Your task to perform on an android device: turn on priority inbox in the gmail app Image 0: 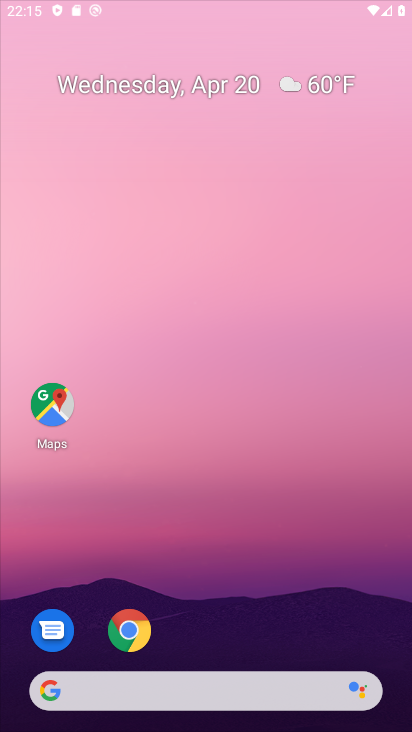
Step 0: click (264, 236)
Your task to perform on an android device: turn on priority inbox in the gmail app Image 1: 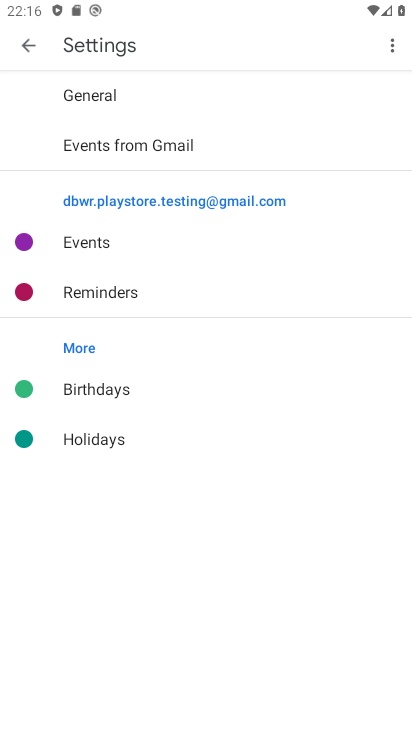
Step 1: press home button
Your task to perform on an android device: turn on priority inbox in the gmail app Image 2: 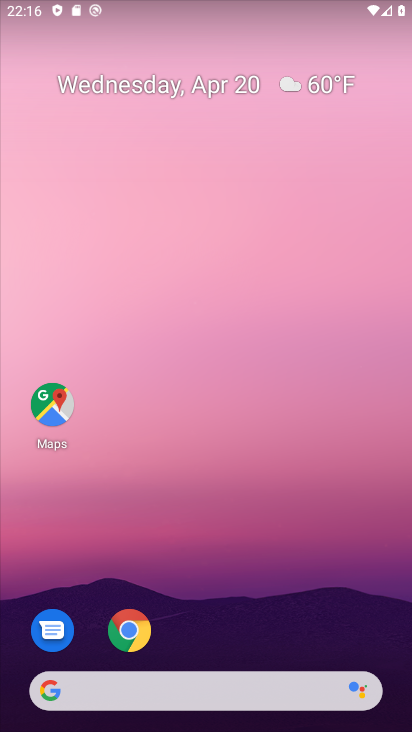
Step 2: drag from (223, 617) to (297, 136)
Your task to perform on an android device: turn on priority inbox in the gmail app Image 3: 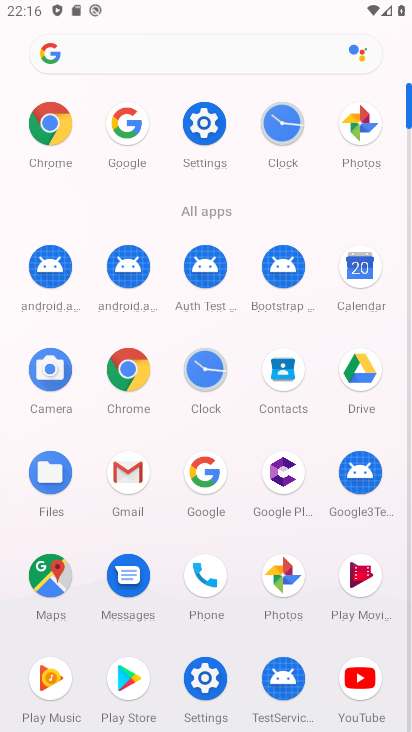
Step 3: click (122, 471)
Your task to perform on an android device: turn on priority inbox in the gmail app Image 4: 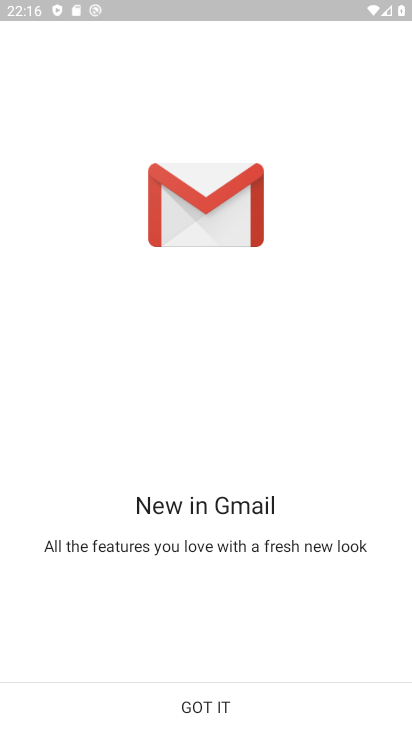
Step 4: click (246, 699)
Your task to perform on an android device: turn on priority inbox in the gmail app Image 5: 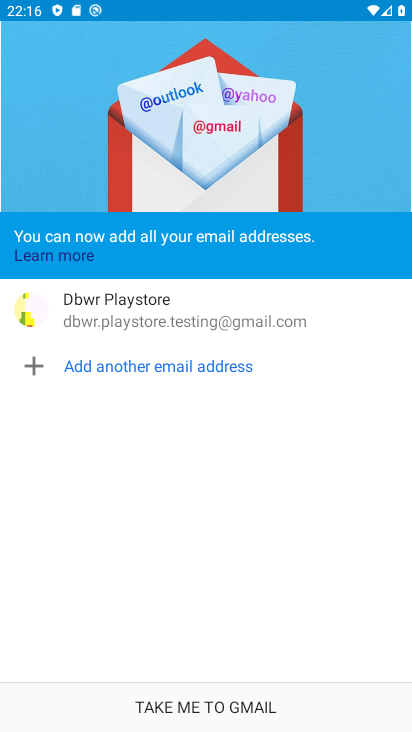
Step 5: click (281, 713)
Your task to perform on an android device: turn on priority inbox in the gmail app Image 6: 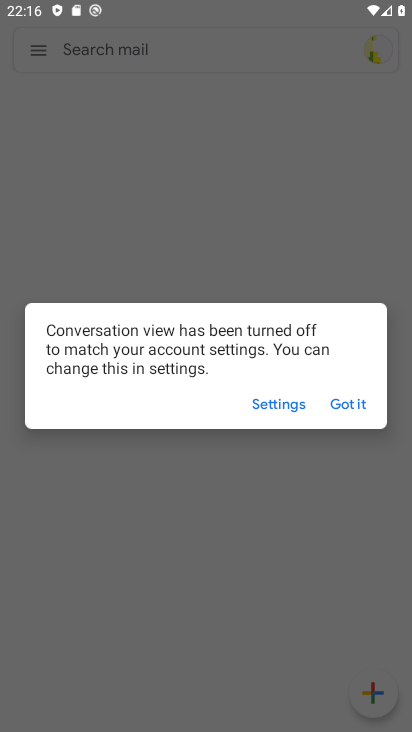
Step 6: click (342, 407)
Your task to perform on an android device: turn on priority inbox in the gmail app Image 7: 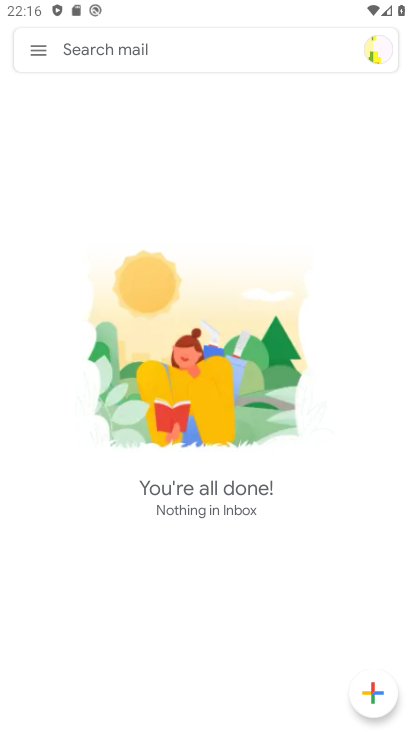
Step 7: click (33, 45)
Your task to perform on an android device: turn on priority inbox in the gmail app Image 8: 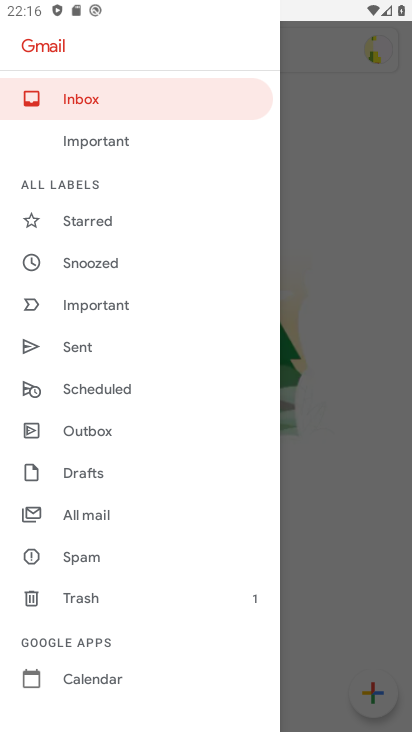
Step 8: drag from (141, 618) to (178, 232)
Your task to perform on an android device: turn on priority inbox in the gmail app Image 9: 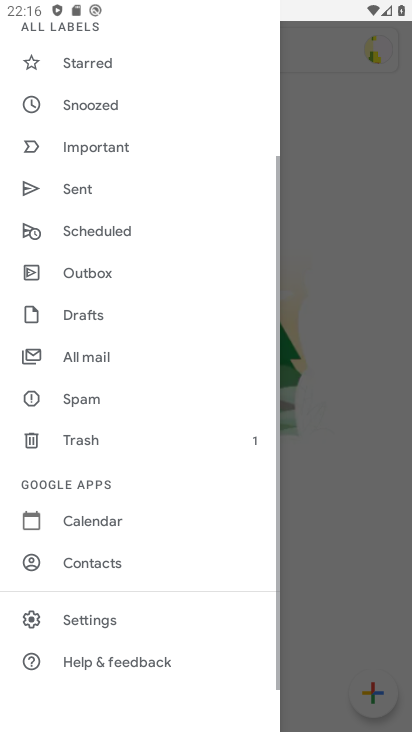
Step 9: click (111, 616)
Your task to perform on an android device: turn on priority inbox in the gmail app Image 10: 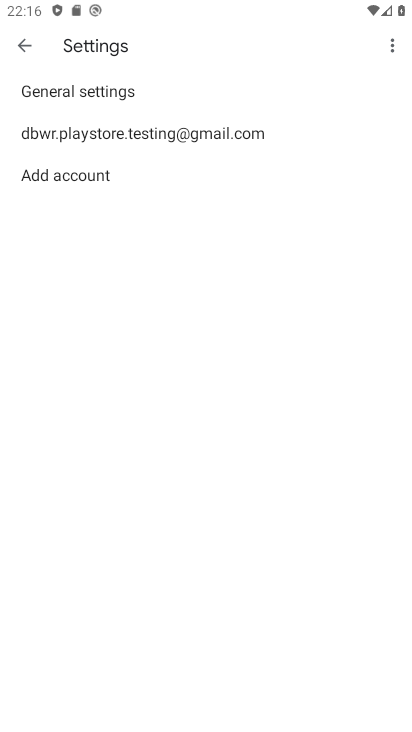
Step 10: click (143, 134)
Your task to perform on an android device: turn on priority inbox in the gmail app Image 11: 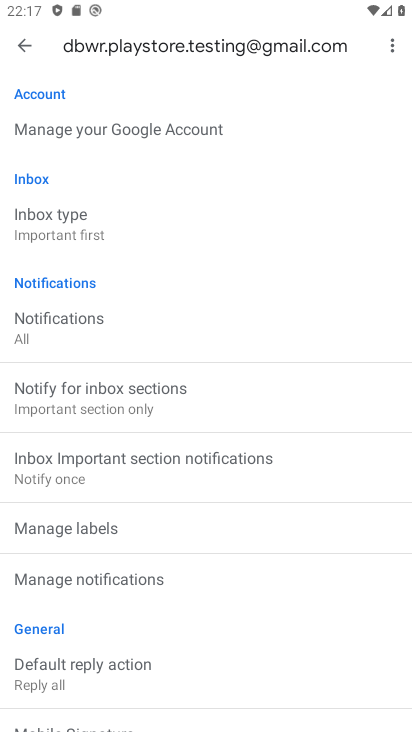
Step 11: click (116, 220)
Your task to perform on an android device: turn on priority inbox in the gmail app Image 12: 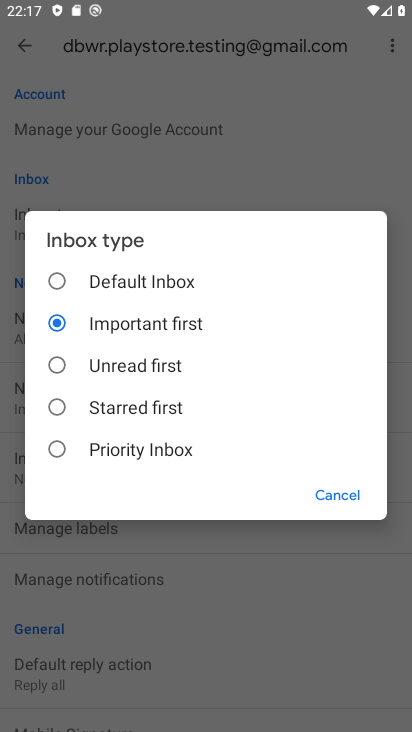
Step 12: click (131, 449)
Your task to perform on an android device: turn on priority inbox in the gmail app Image 13: 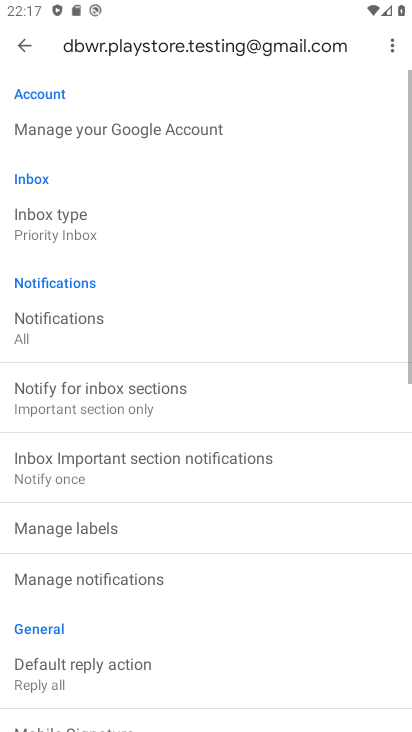
Step 13: task complete